Your task to perform on an android device: turn off wifi Image 0: 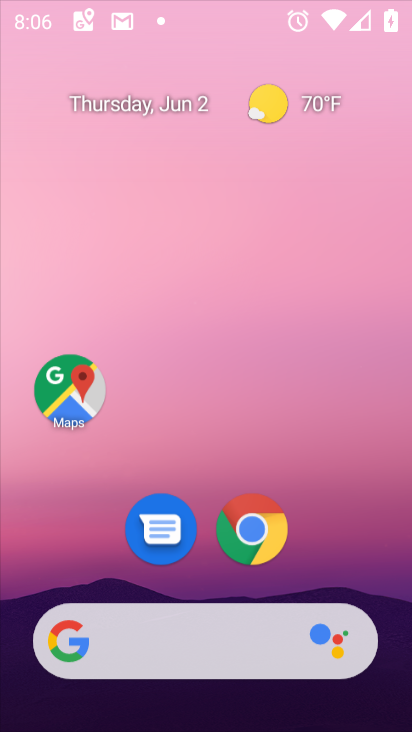
Step 0: click (244, 273)
Your task to perform on an android device: turn off wifi Image 1: 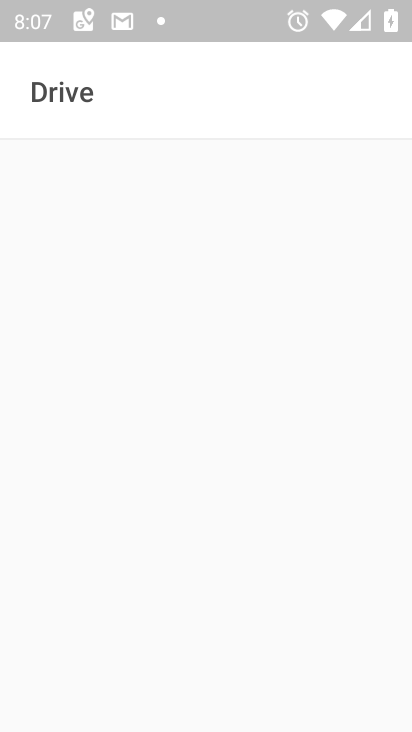
Step 1: drag from (177, 598) to (168, 282)
Your task to perform on an android device: turn off wifi Image 2: 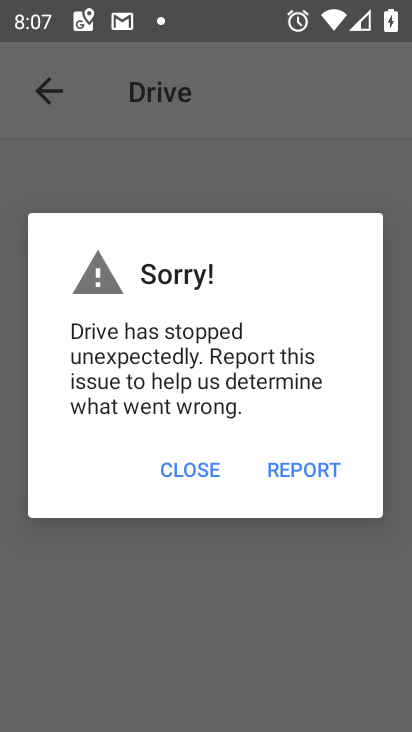
Step 2: press home button
Your task to perform on an android device: turn off wifi Image 3: 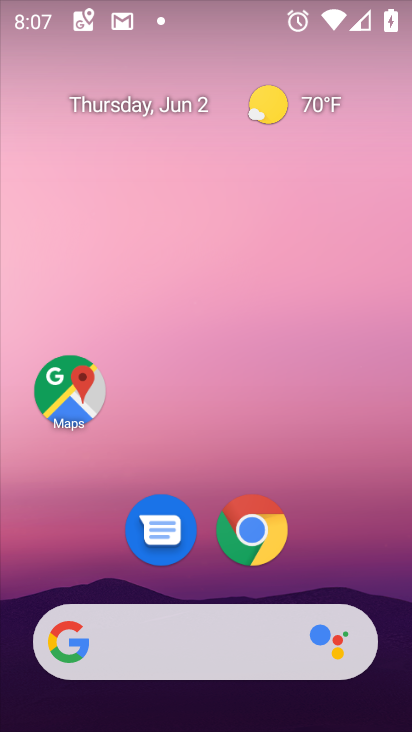
Step 3: drag from (196, 598) to (195, 186)
Your task to perform on an android device: turn off wifi Image 4: 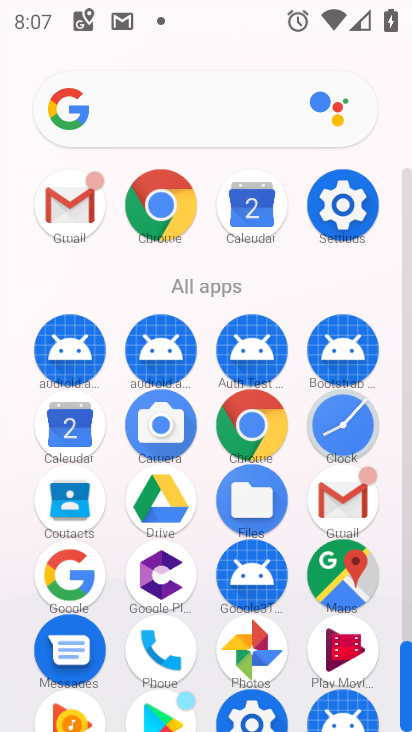
Step 4: click (350, 204)
Your task to perform on an android device: turn off wifi Image 5: 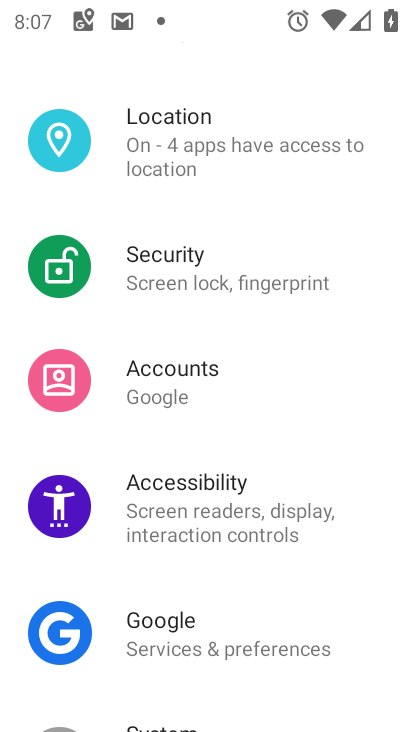
Step 5: drag from (258, 144) to (250, 561)
Your task to perform on an android device: turn off wifi Image 6: 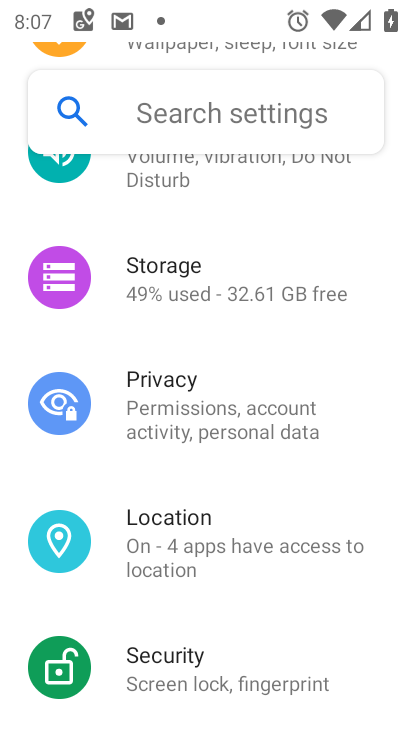
Step 6: drag from (265, 200) to (273, 595)
Your task to perform on an android device: turn off wifi Image 7: 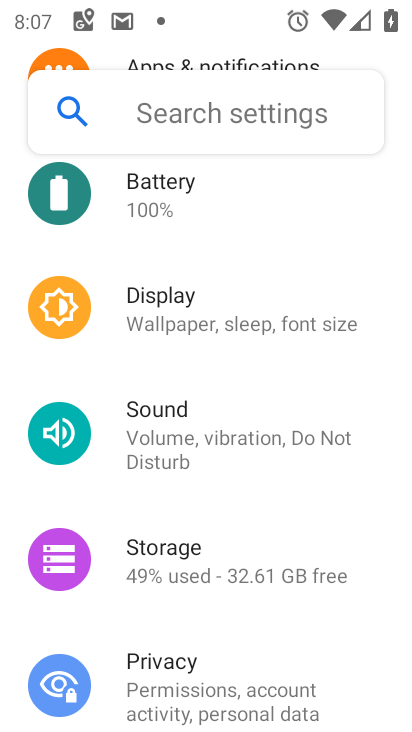
Step 7: drag from (276, 218) to (289, 575)
Your task to perform on an android device: turn off wifi Image 8: 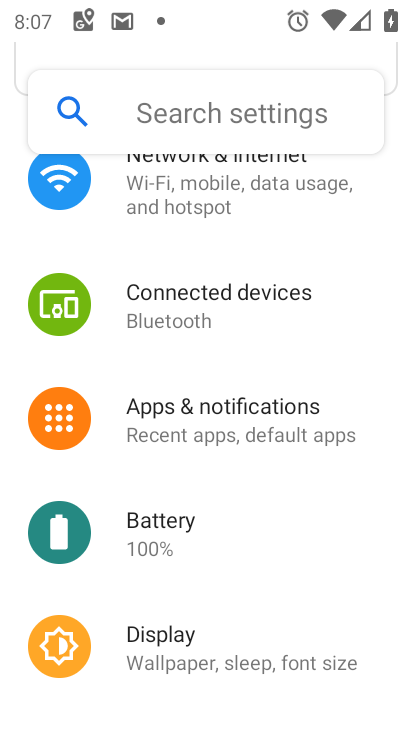
Step 8: click (236, 191)
Your task to perform on an android device: turn off wifi Image 9: 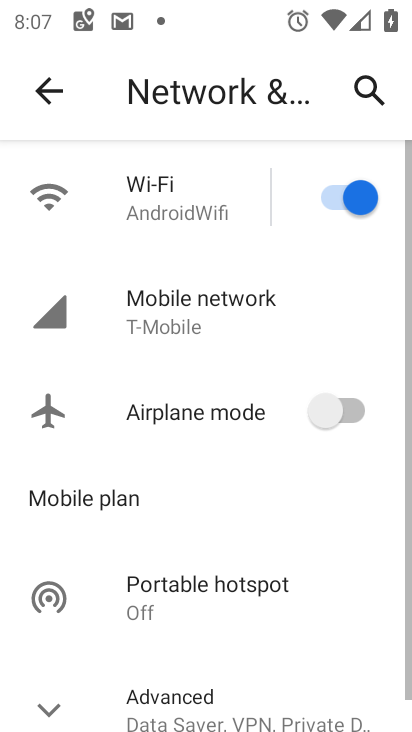
Step 9: click (324, 192)
Your task to perform on an android device: turn off wifi Image 10: 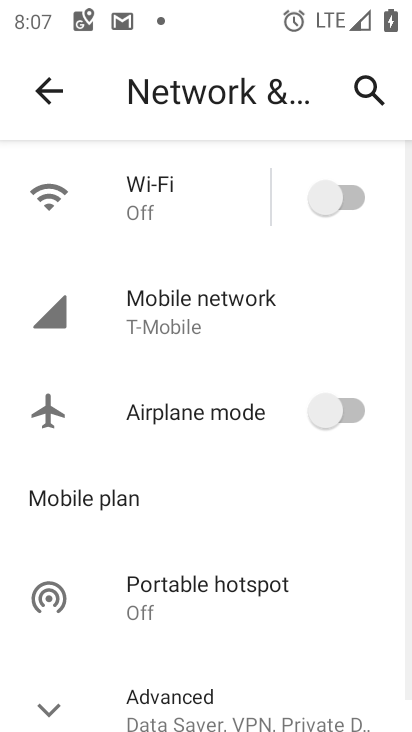
Step 10: task complete